Your task to perform on an android device: all mails in gmail Image 0: 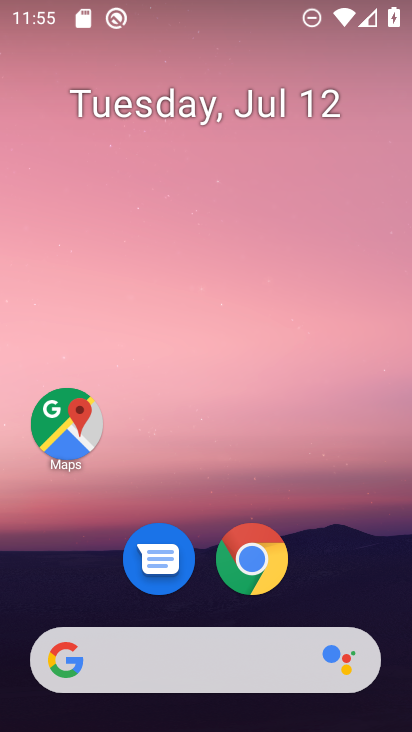
Step 0: drag from (178, 705) to (174, 188)
Your task to perform on an android device: all mails in gmail Image 1: 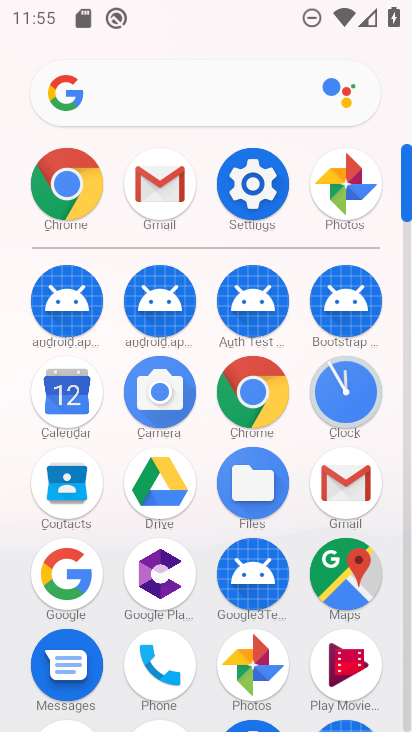
Step 1: drag from (211, 517) to (219, 395)
Your task to perform on an android device: all mails in gmail Image 2: 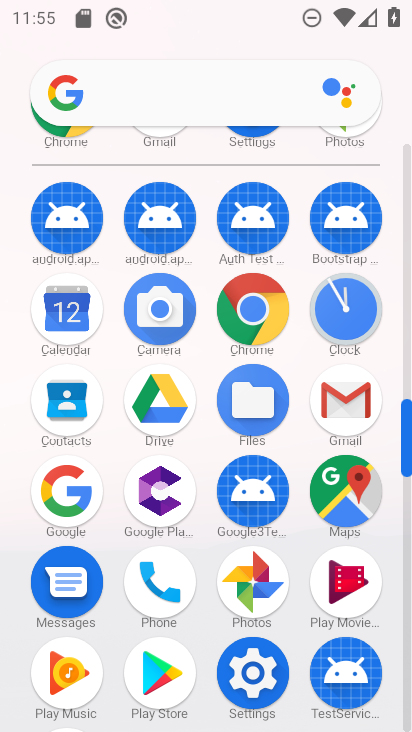
Step 2: click (356, 403)
Your task to perform on an android device: all mails in gmail Image 3: 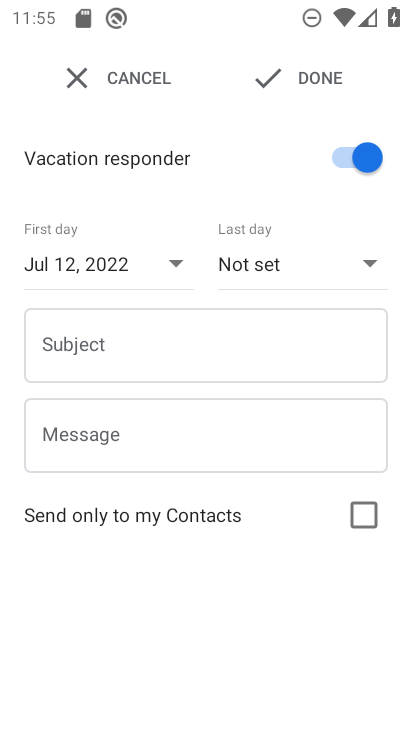
Step 3: press home button
Your task to perform on an android device: all mails in gmail Image 4: 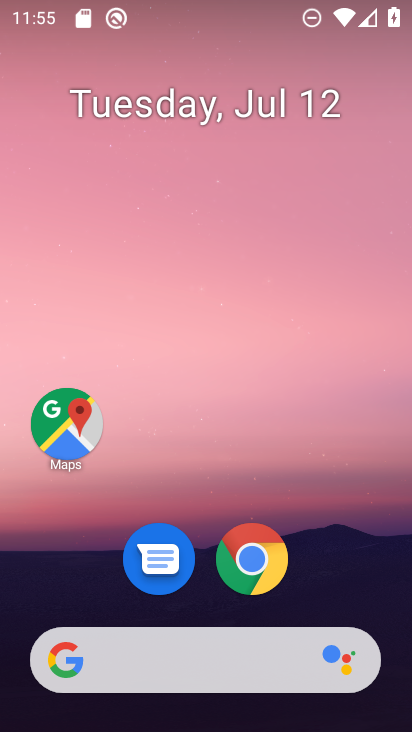
Step 4: drag from (309, 599) to (345, 149)
Your task to perform on an android device: all mails in gmail Image 5: 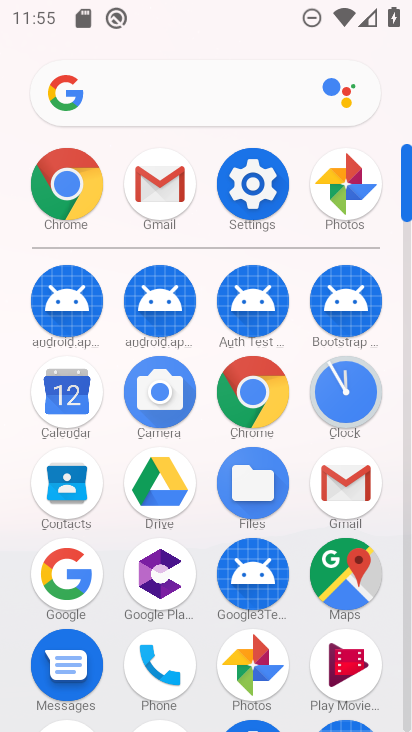
Step 5: click (361, 508)
Your task to perform on an android device: all mails in gmail Image 6: 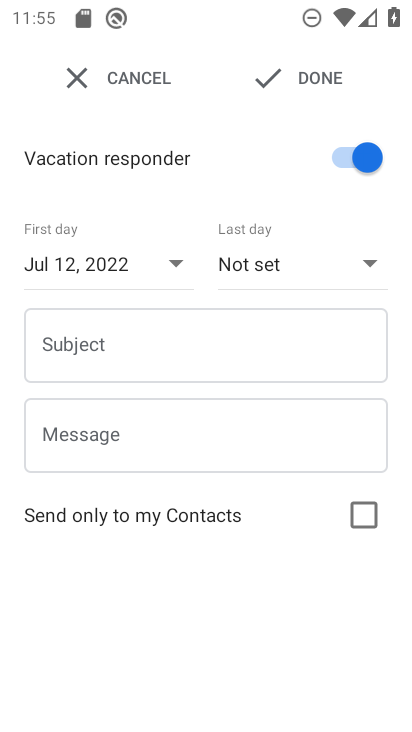
Step 6: click (90, 96)
Your task to perform on an android device: all mails in gmail Image 7: 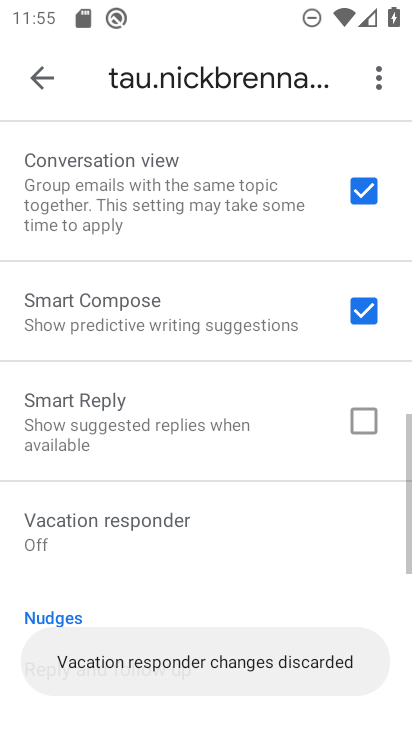
Step 7: click (55, 78)
Your task to perform on an android device: all mails in gmail Image 8: 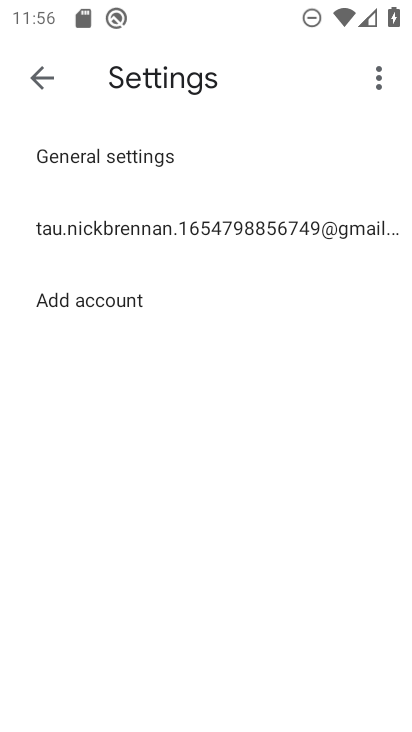
Step 8: click (55, 82)
Your task to perform on an android device: all mails in gmail Image 9: 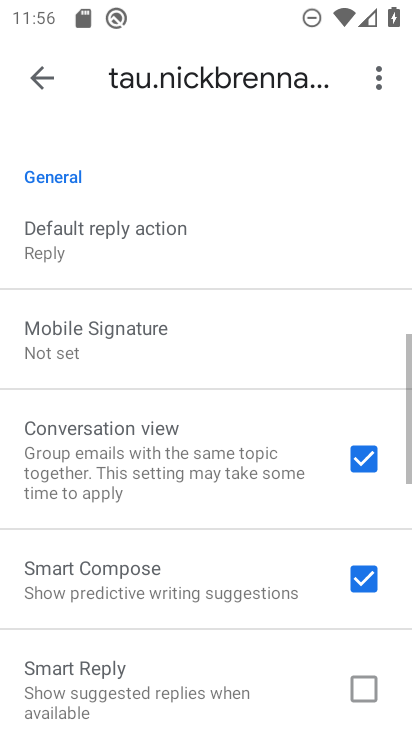
Step 9: click (55, 82)
Your task to perform on an android device: all mails in gmail Image 10: 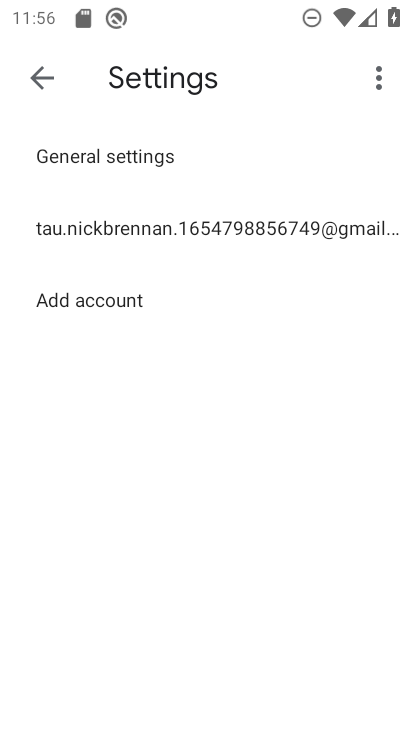
Step 10: click (55, 87)
Your task to perform on an android device: all mails in gmail Image 11: 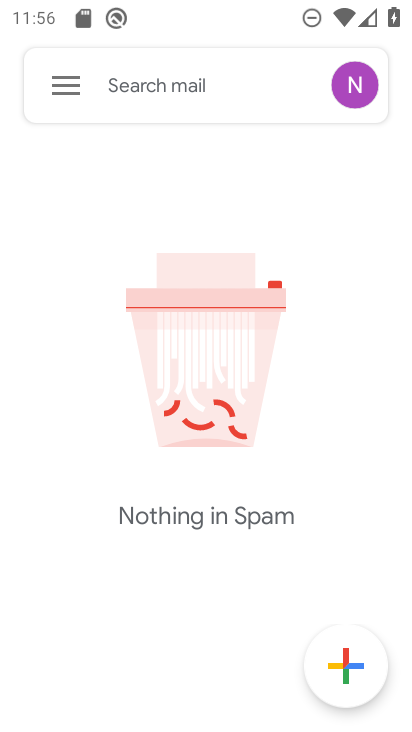
Step 11: click (65, 92)
Your task to perform on an android device: all mails in gmail Image 12: 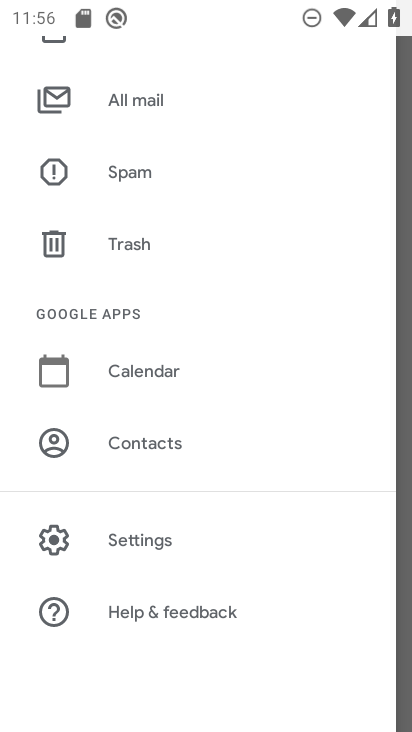
Step 12: click (166, 117)
Your task to perform on an android device: all mails in gmail Image 13: 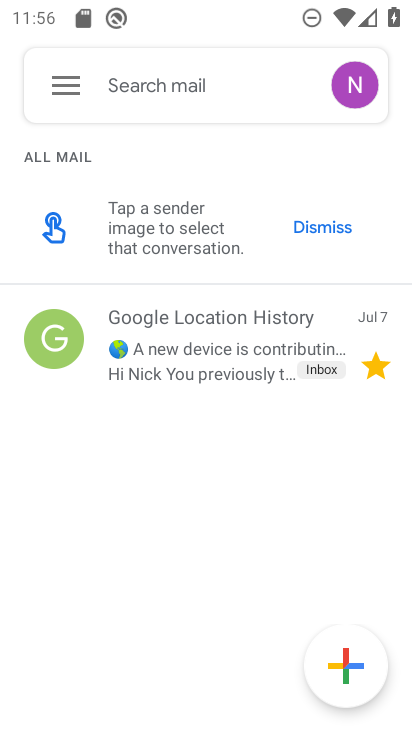
Step 13: task complete